Your task to perform on an android device: snooze an email in the gmail app Image 0: 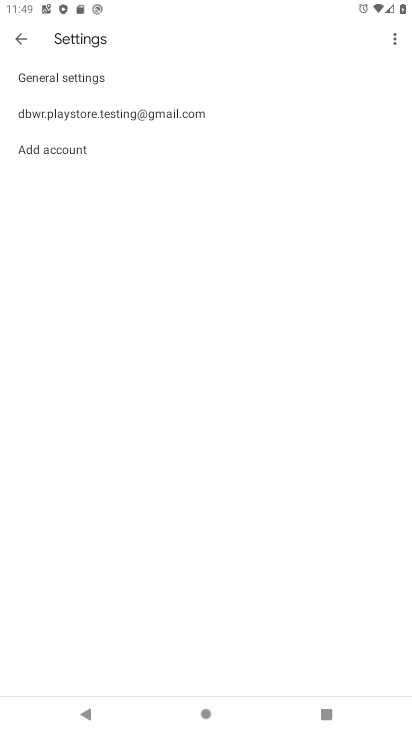
Step 0: click (24, 37)
Your task to perform on an android device: snooze an email in the gmail app Image 1: 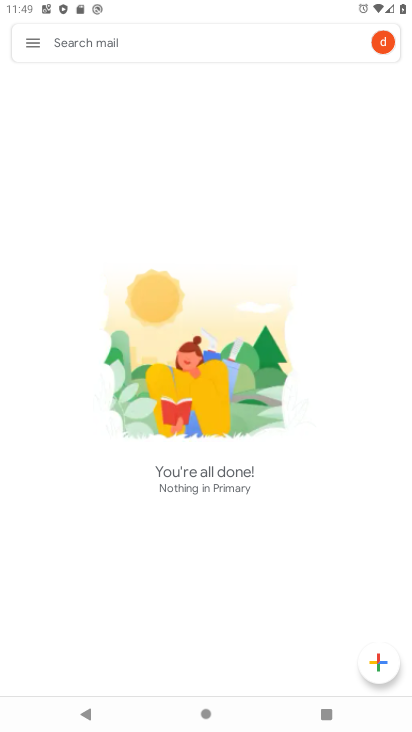
Step 1: task complete